Your task to perform on an android device: Go to settings Image 0: 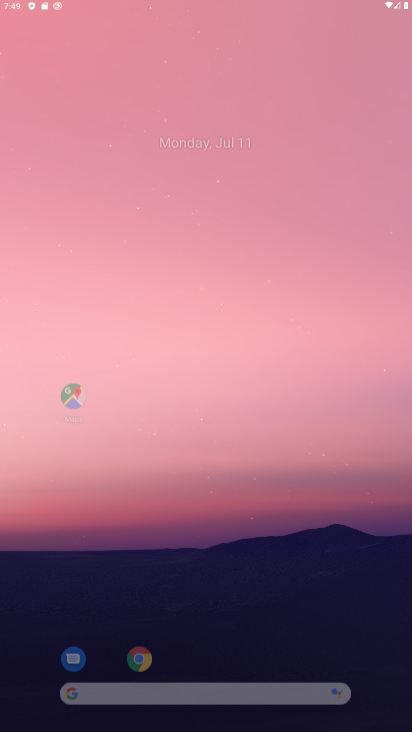
Step 0: press home button
Your task to perform on an android device: Go to settings Image 1: 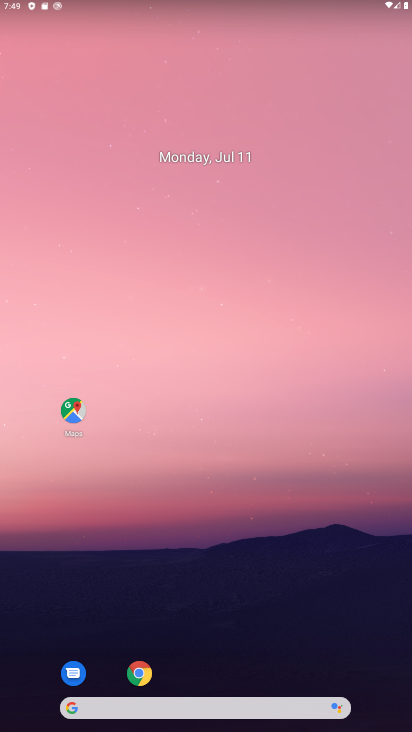
Step 1: drag from (229, 647) to (244, 118)
Your task to perform on an android device: Go to settings Image 2: 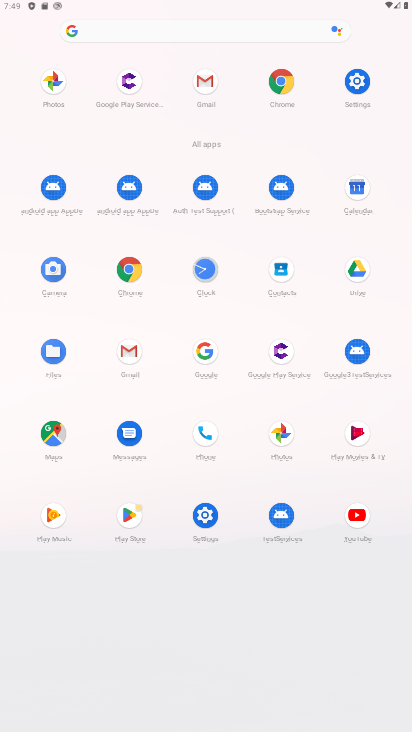
Step 2: click (203, 513)
Your task to perform on an android device: Go to settings Image 3: 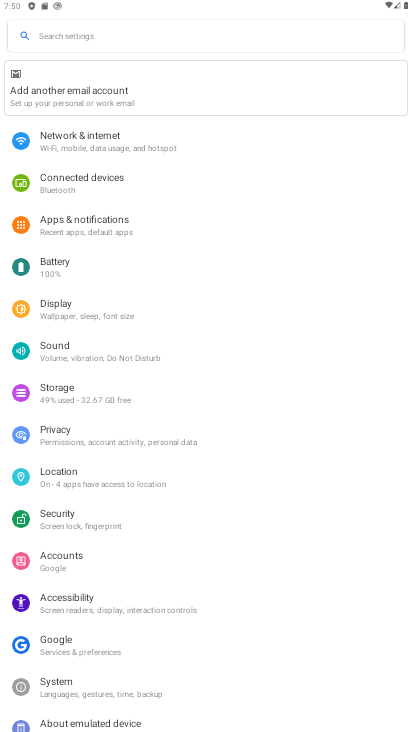
Step 3: task complete